Your task to perform on an android device: Open the map Image 0: 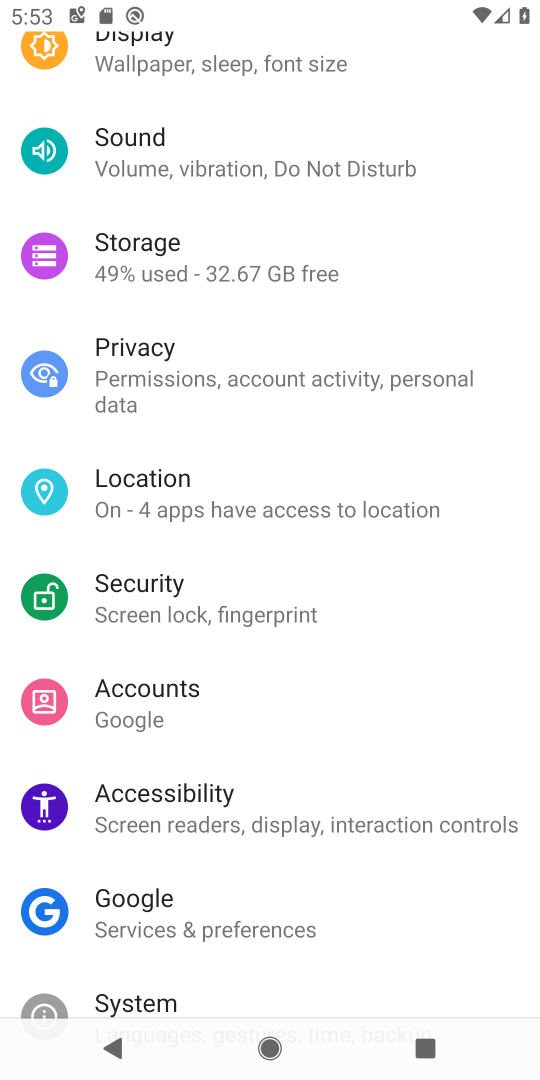
Step 0: press home button
Your task to perform on an android device: Open the map Image 1: 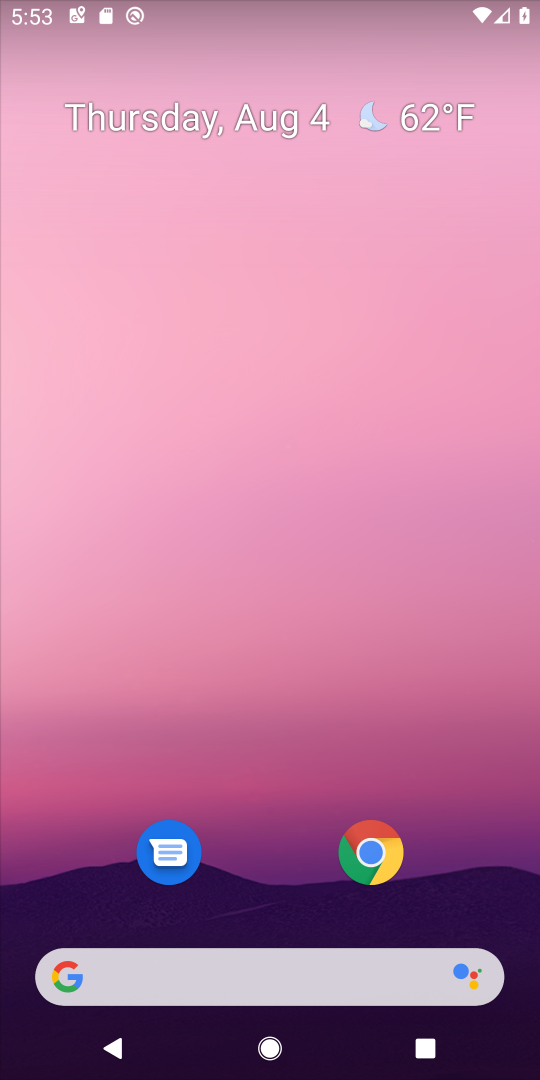
Step 1: click (272, 793)
Your task to perform on an android device: Open the map Image 2: 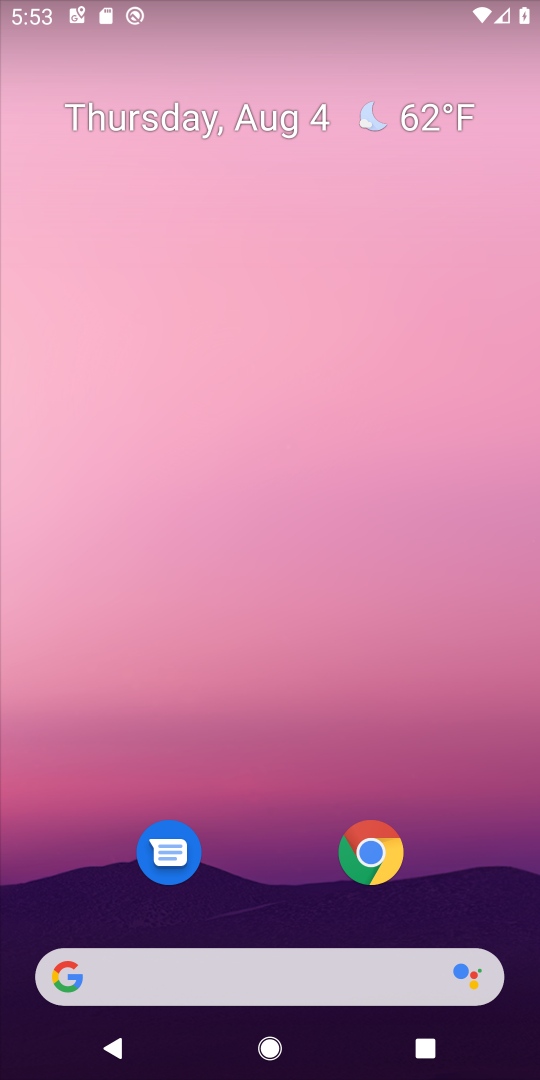
Step 2: click (297, 294)
Your task to perform on an android device: Open the map Image 3: 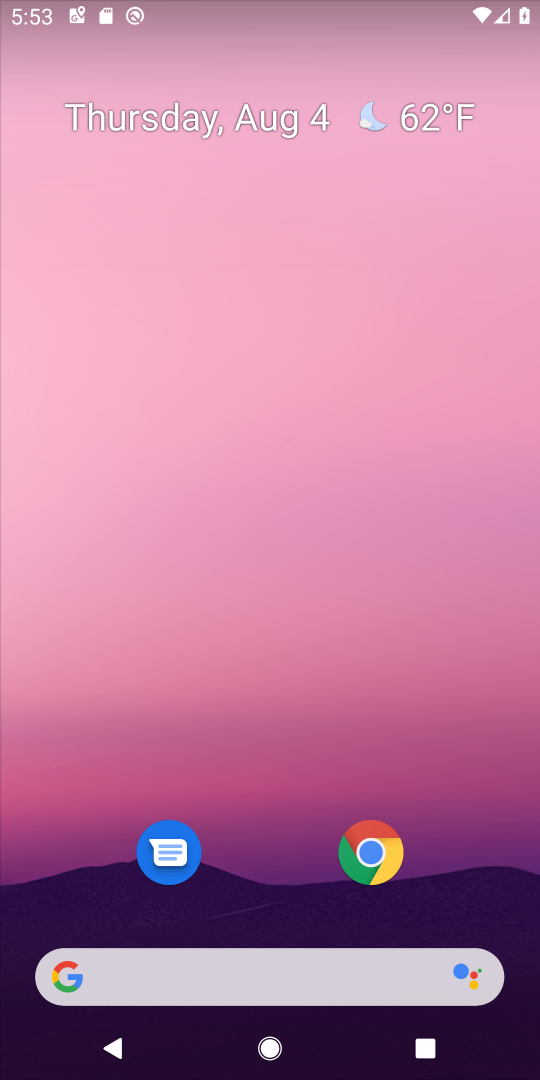
Step 3: drag from (280, 712) to (280, 537)
Your task to perform on an android device: Open the map Image 4: 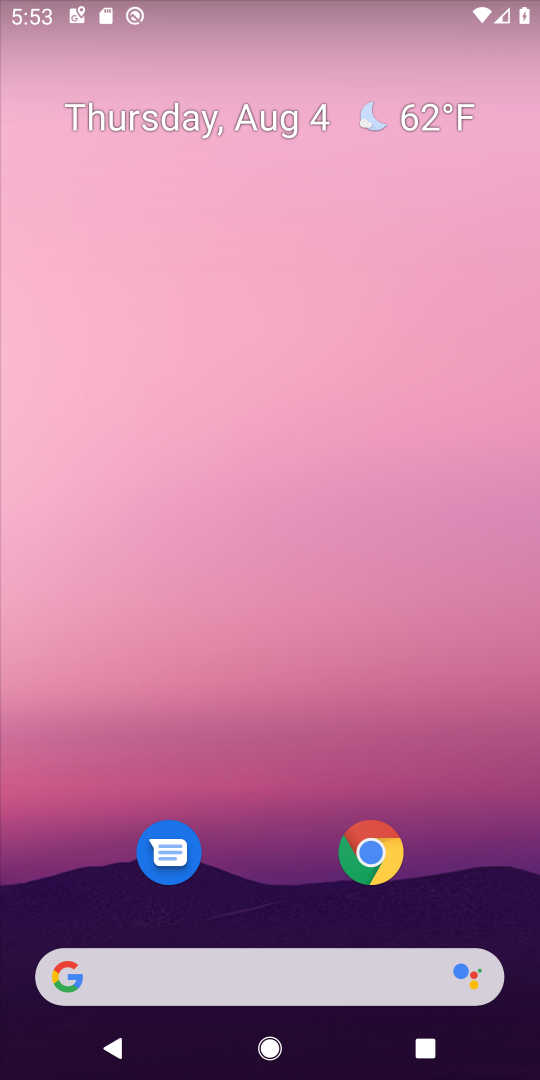
Step 4: click (289, 193)
Your task to perform on an android device: Open the map Image 5: 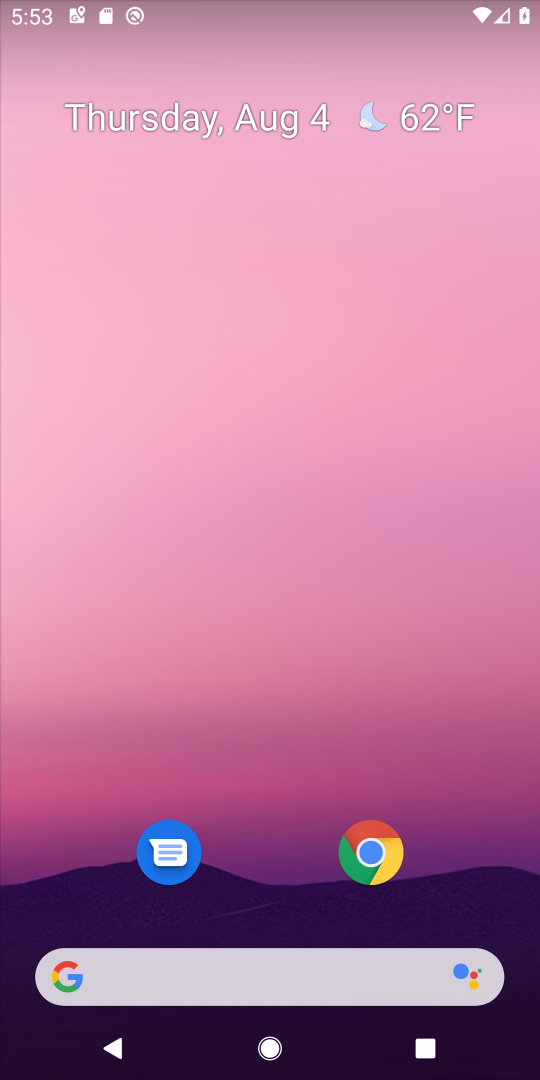
Step 5: drag from (263, 928) to (253, 103)
Your task to perform on an android device: Open the map Image 6: 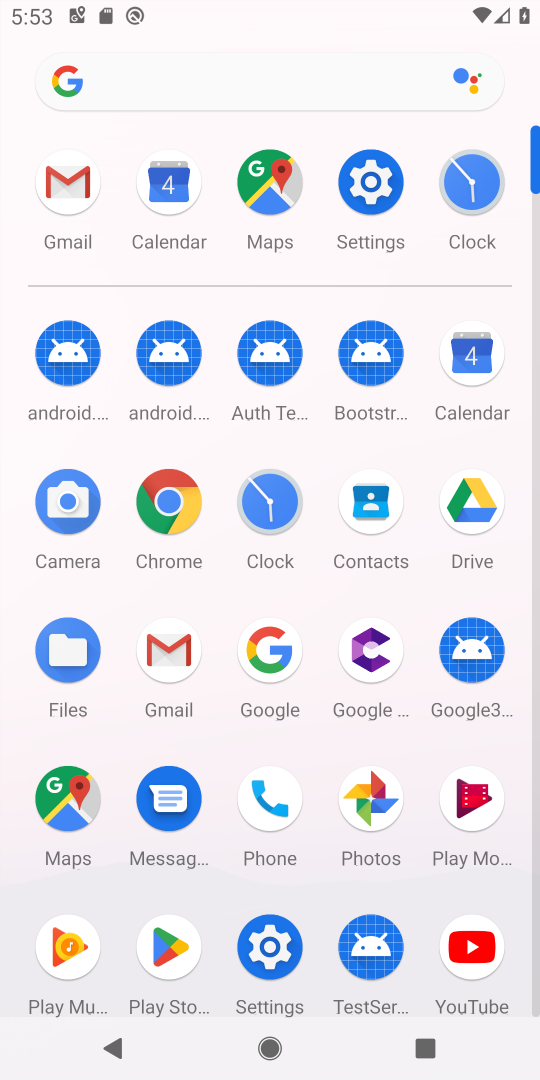
Step 6: click (69, 806)
Your task to perform on an android device: Open the map Image 7: 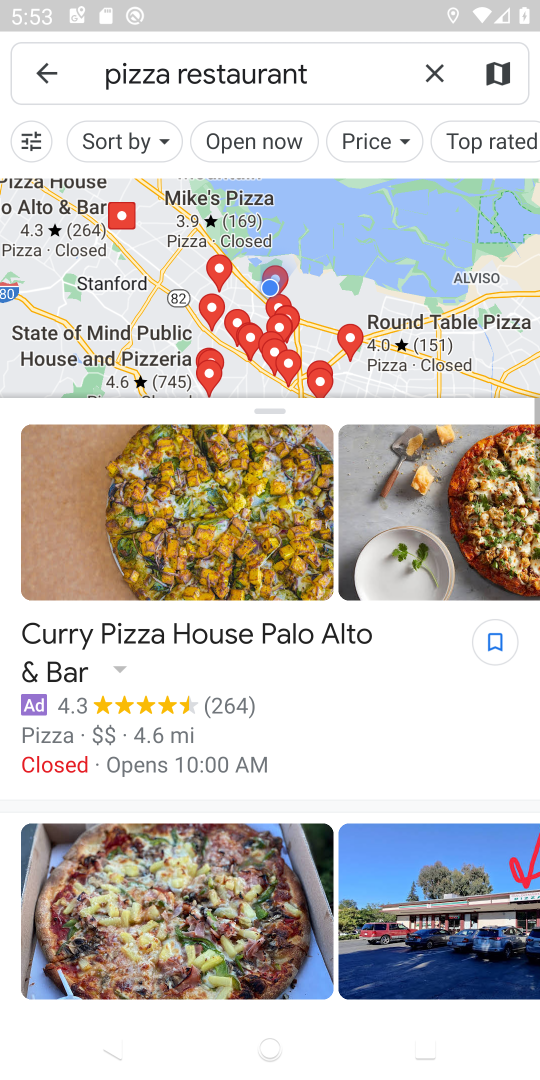
Step 7: task complete